Your task to perform on an android device: turn on javascript in the chrome app Image 0: 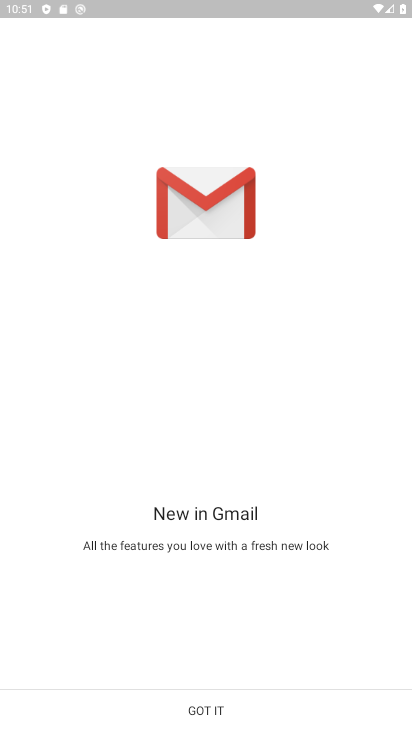
Step 0: press home button
Your task to perform on an android device: turn on javascript in the chrome app Image 1: 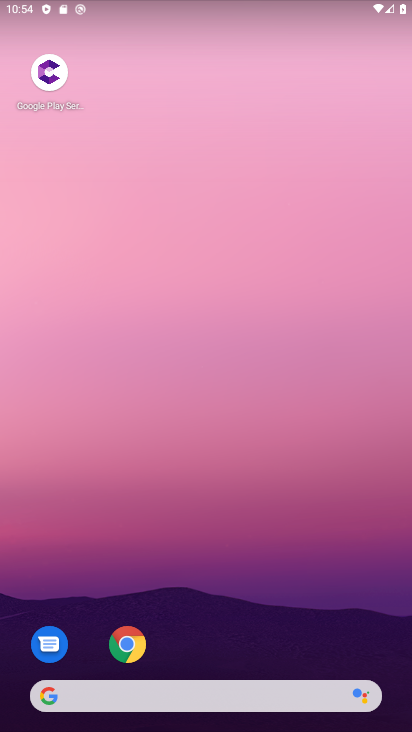
Step 1: drag from (379, 649) to (154, 10)
Your task to perform on an android device: turn on javascript in the chrome app Image 2: 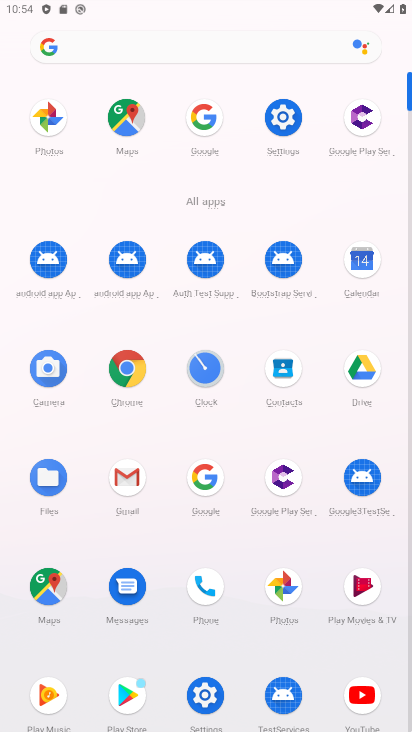
Step 2: click (135, 357)
Your task to perform on an android device: turn on javascript in the chrome app Image 3: 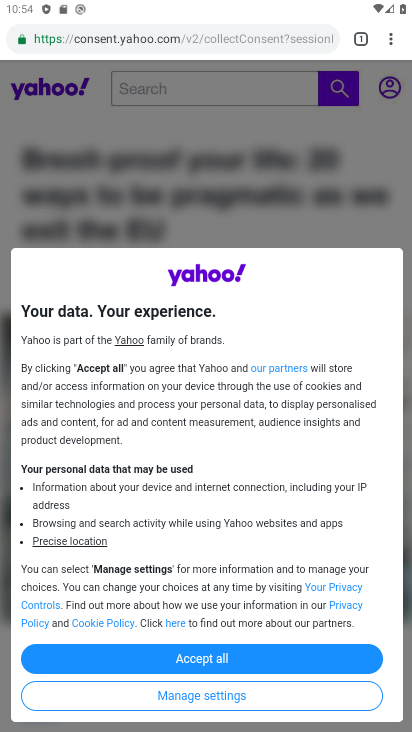
Step 3: press back button
Your task to perform on an android device: turn on javascript in the chrome app Image 4: 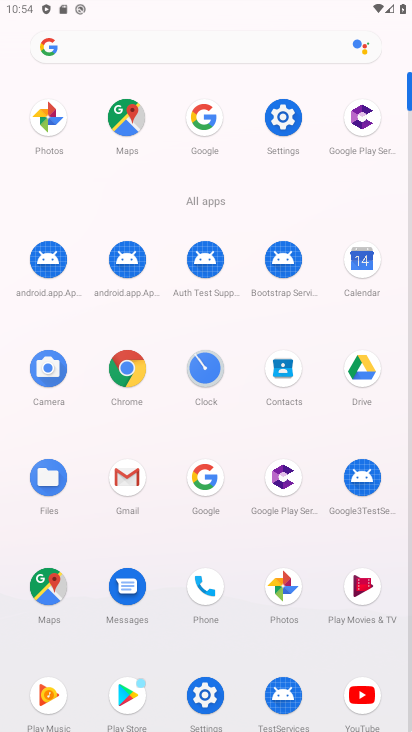
Step 4: click (117, 375)
Your task to perform on an android device: turn on javascript in the chrome app Image 5: 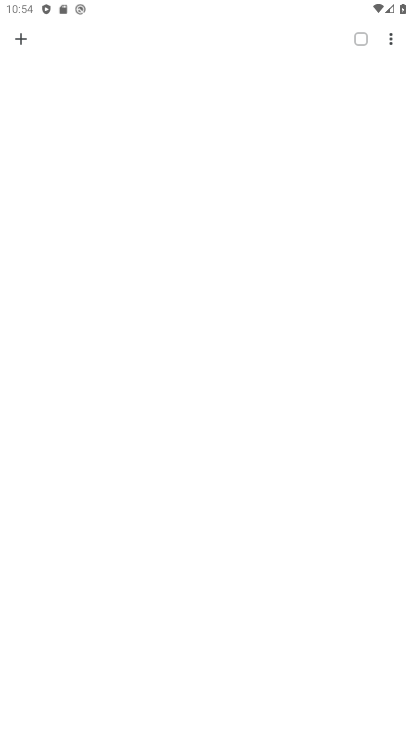
Step 5: click (388, 40)
Your task to perform on an android device: turn on javascript in the chrome app Image 6: 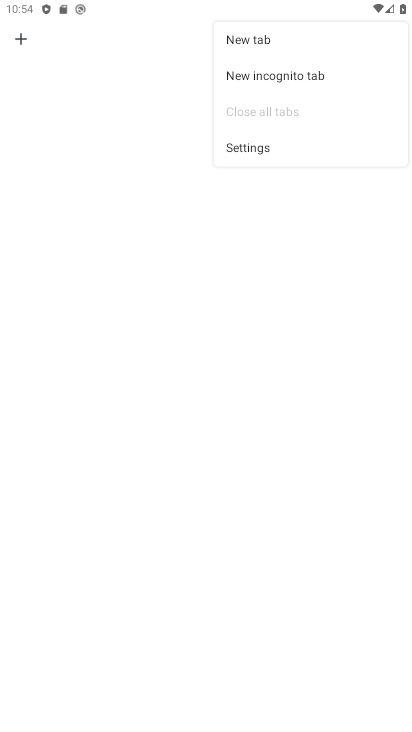
Step 6: click (264, 144)
Your task to perform on an android device: turn on javascript in the chrome app Image 7: 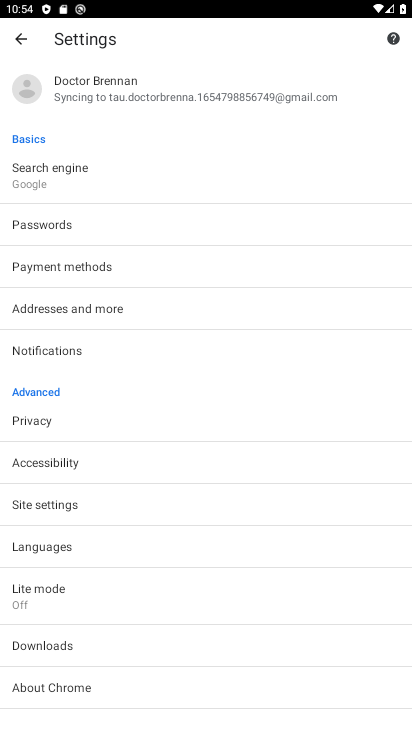
Step 7: click (63, 508)
Your task to perform on an android device: turn on javascript in the chrome app Image 8: 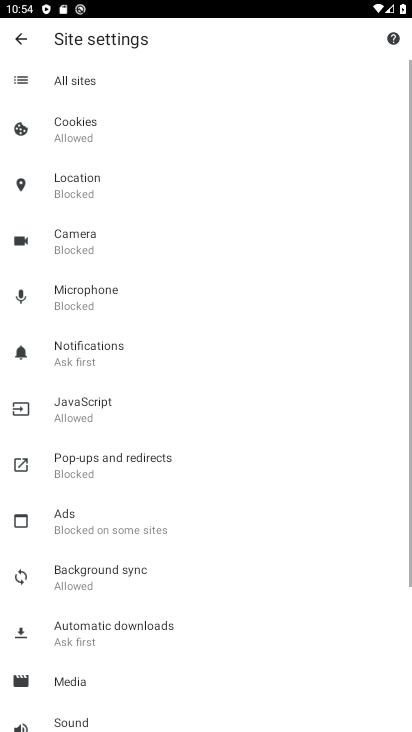
Step 8: click (105, 408)
Your task to perform on an android device: turn on javascript in the chrome app Image 9: 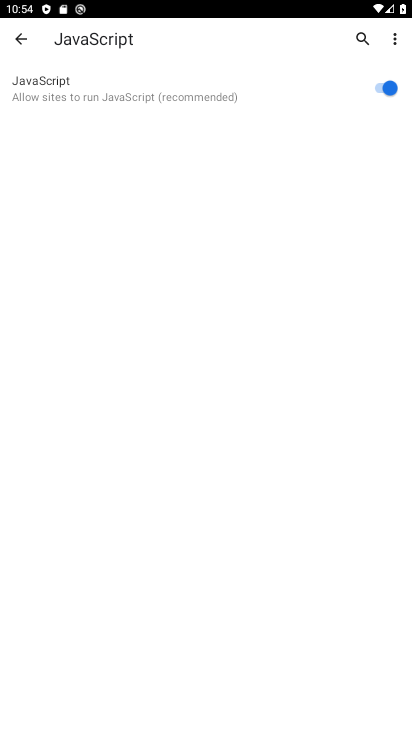
Step 9: task complete